Your task to perform on an android device: turn off wifi Image 0: 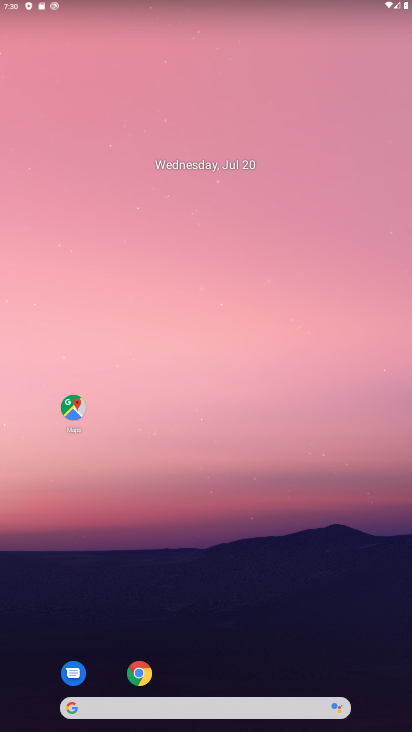
Step 0: drag from (266, 617) to (323, 5)
Your task to perform on an android device: turn off wifi Image 1: 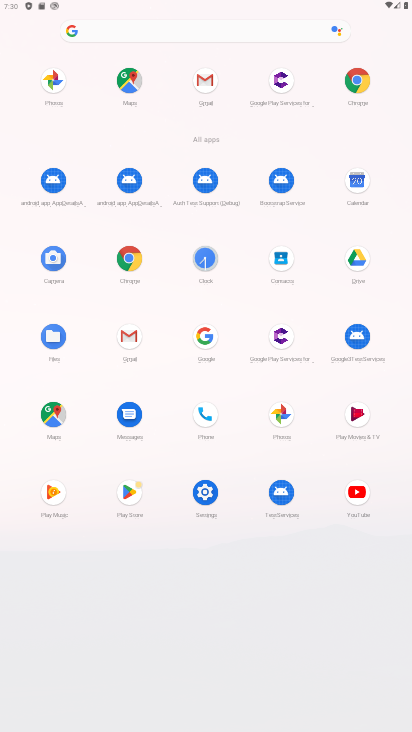
Step 1: click (191, 495)
Your task to perform on an android device: turn off wifi Image 2: 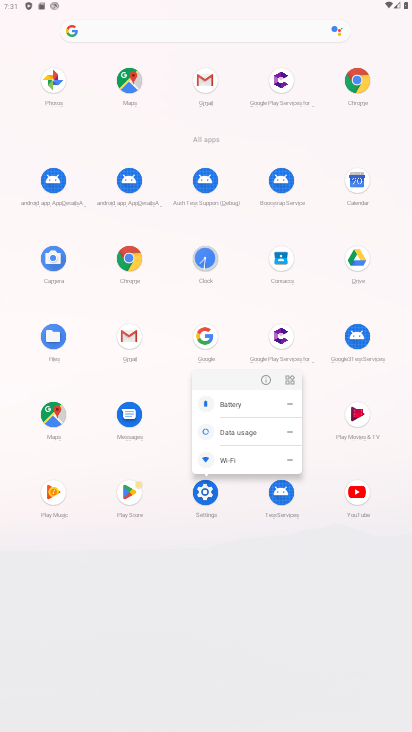
Step 2: click (209, 492)
Your task to perform on an android device: turn off wifi Image 3: 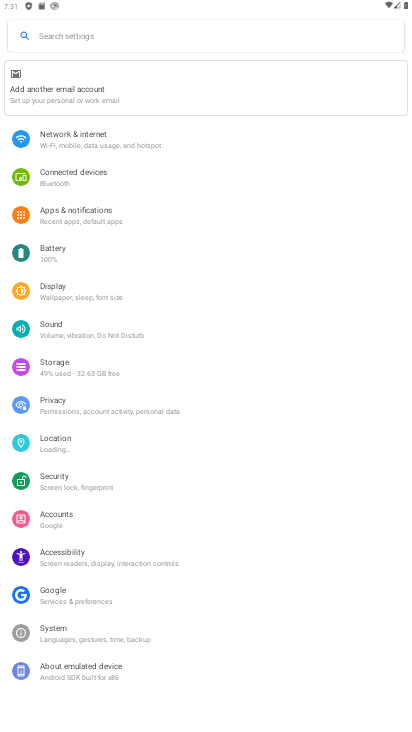
Step 3: click (79, 140)
Your task to perform on an android device: turn off wifi Image 4: 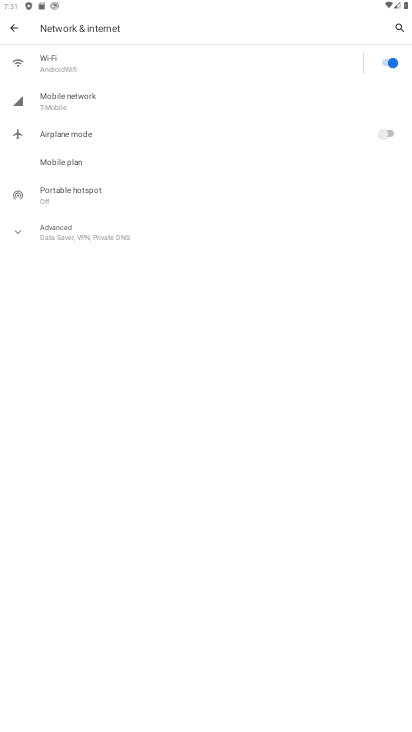
Step 4: click (391, 58)
Your task to perform on an android device: turn off wifi Image 5: 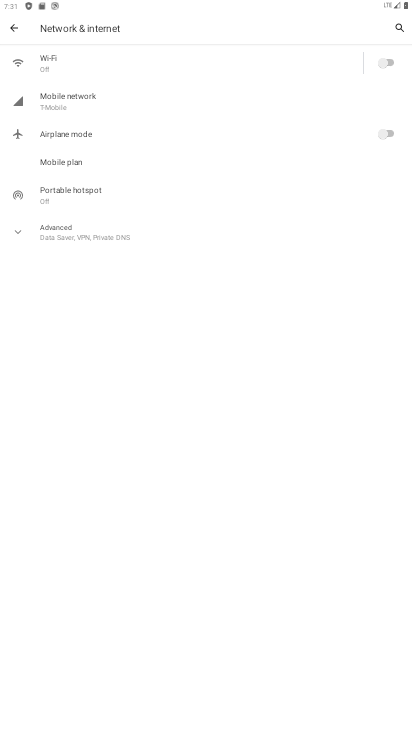
Step 5: task complete